Your task to perform on an android device: all mails in gmail Image 0: 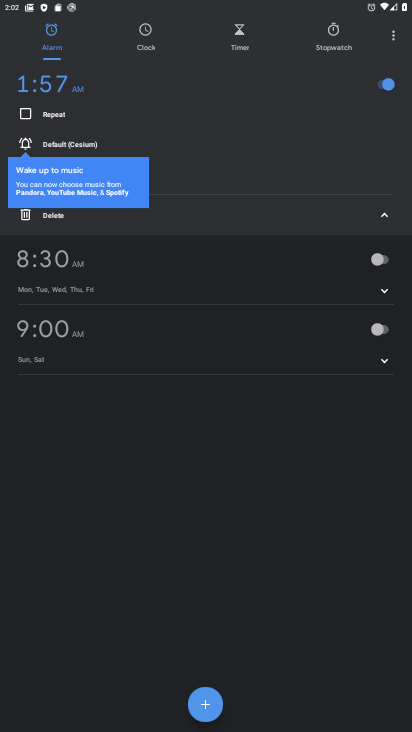
Step 0: press home button
Your task to perform on an android device: all mails in gmail Image 1: 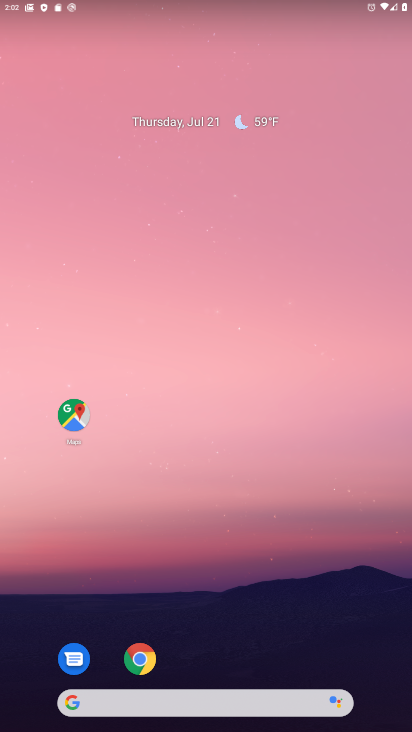
Step 1: drag from (294, 621) to (185, 128)
Your task to perform on an android device: all mails in gmail Image 2: 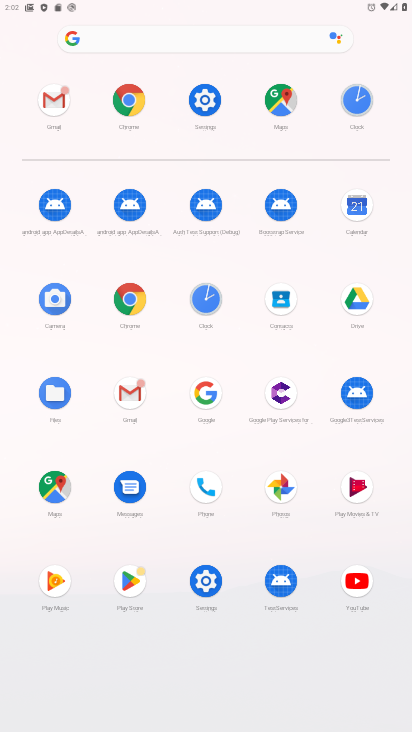
Step 2: click (61, 91)
Your task to perform on an android device: all mails in gmail Image 3: 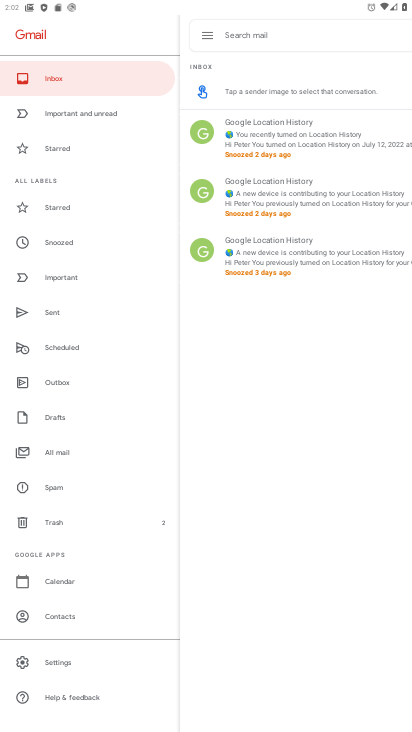
Step 3: click (63, 450)
Your task to perform on an android device: all mails in gmail Image 4: 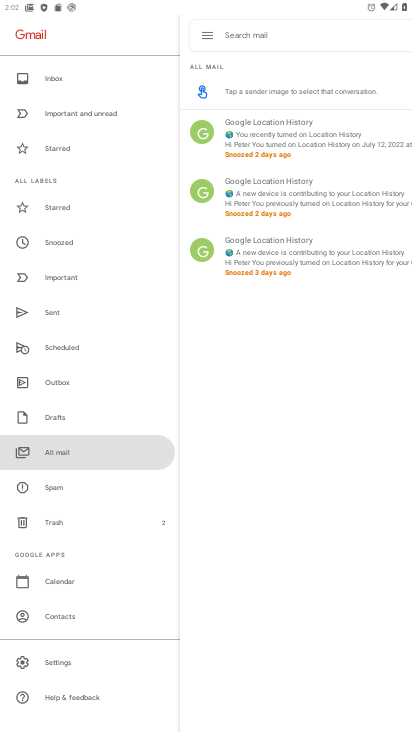
Step 4: task complete